Your task to perform on an android device: Open Amazon Image 0: 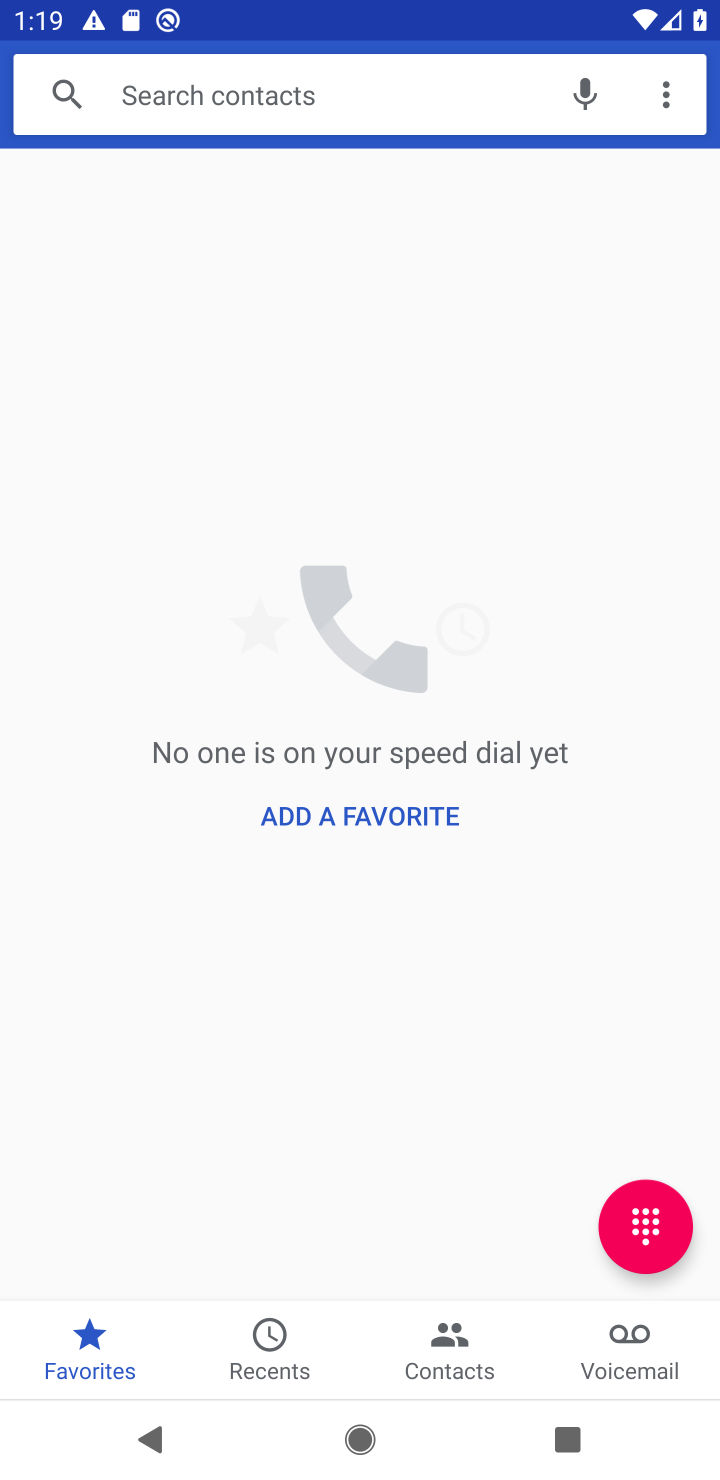
Step 0: press home button
Your task to perform on an android device: Open Amazon Image 1: 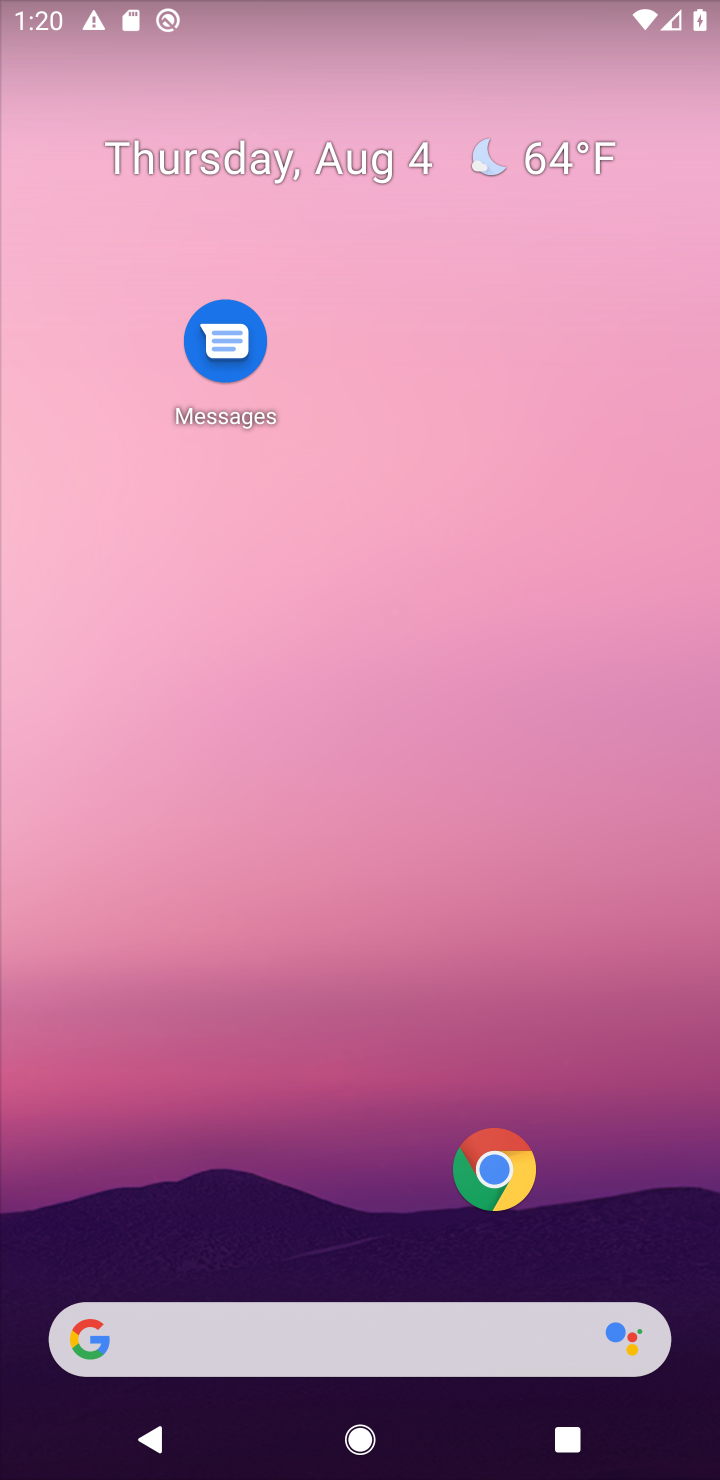
Step 1: drag from (311, 704) to (110, 20)
Your task to perform on an android device: Open Amazon Image 2: 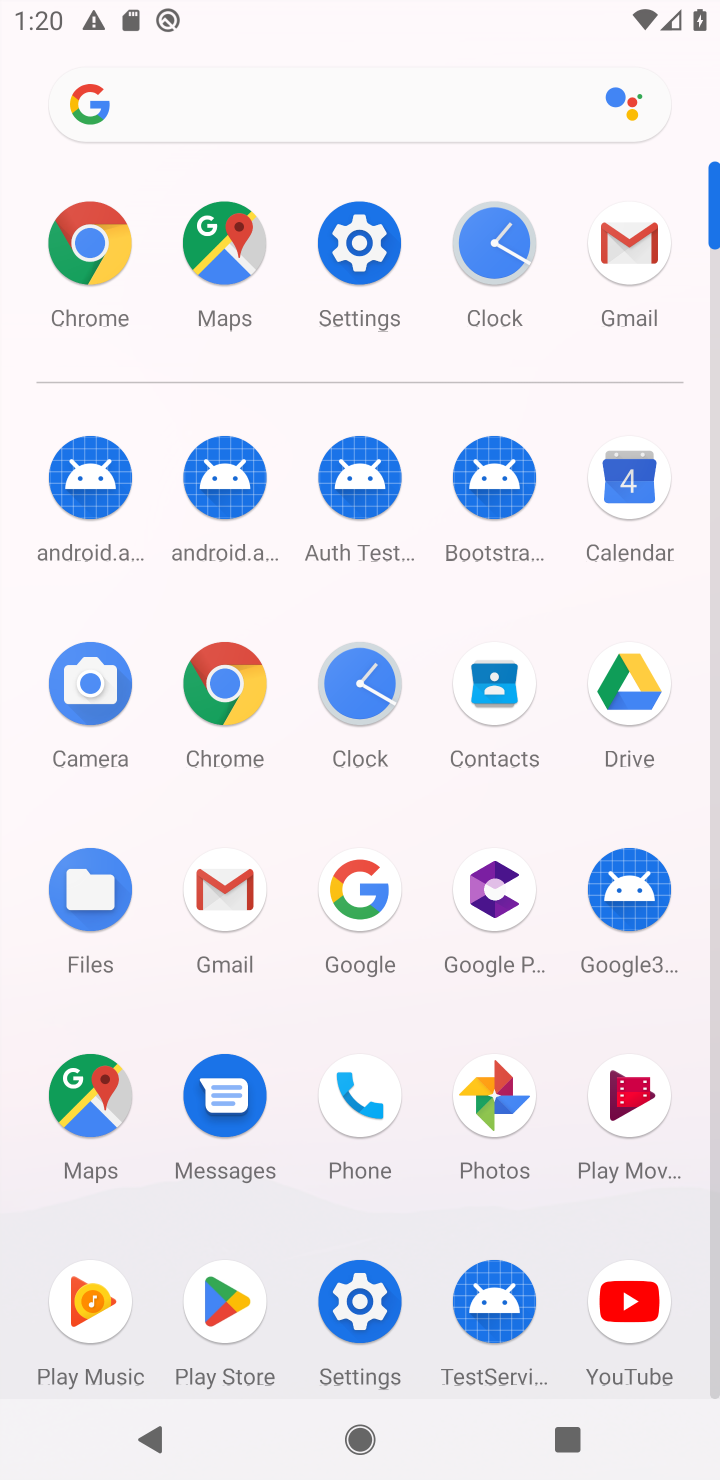
Step 2: click (357, 717)
Your task to perform on an android device: Open Amazon Image 3: 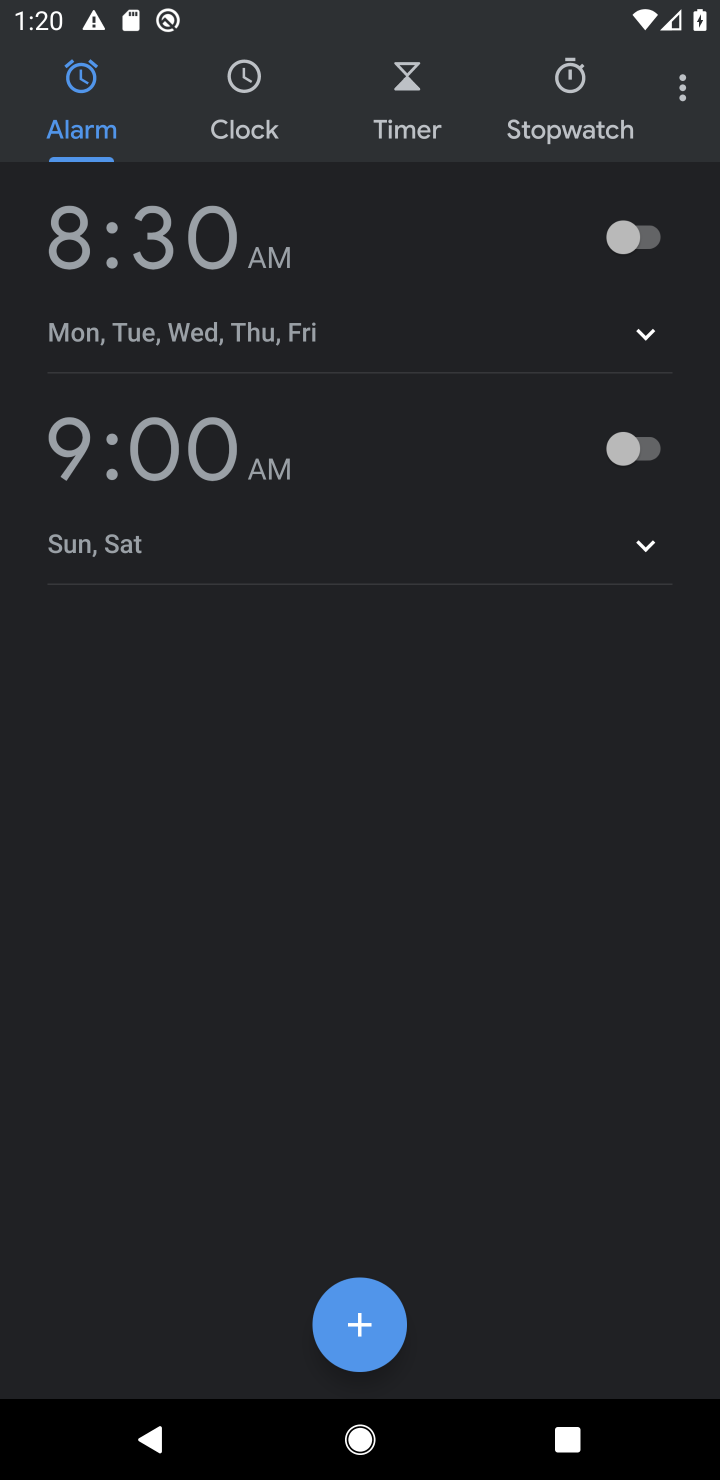
Step 3: press home button
Your task to perform on an android device: Open Amazon Image 4: 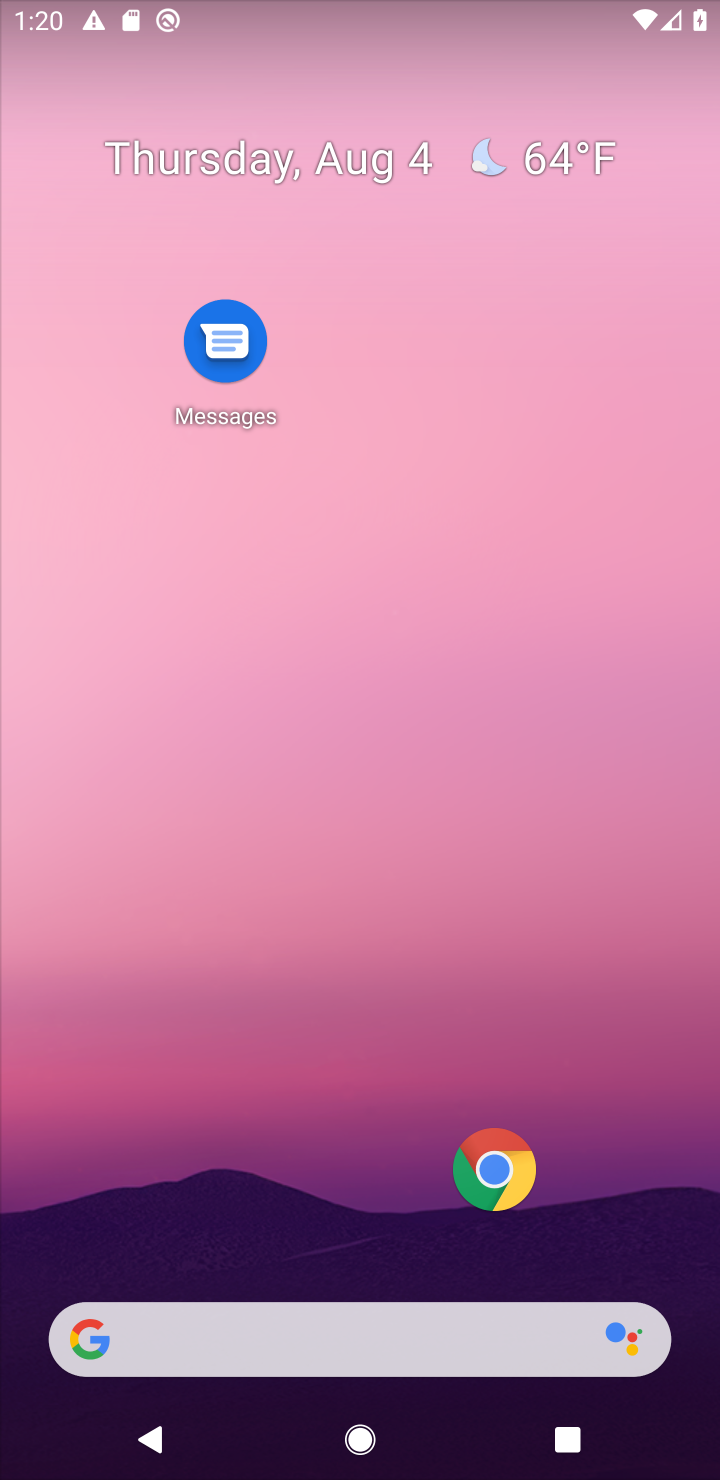
Step 4: click (490, 1174)
Your task to perform on an android device: Open Amazon Image 5: 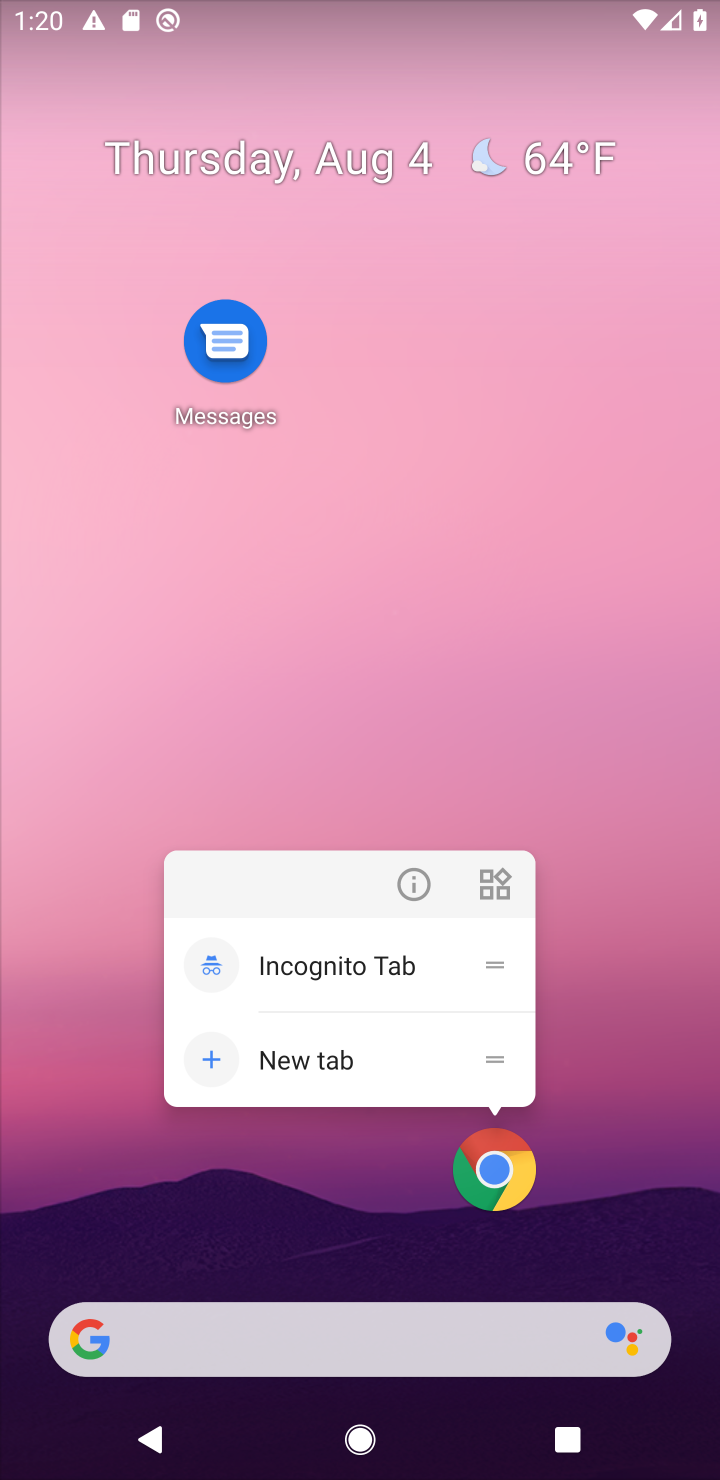
Step 5: click (508, 1186)
Your task to perform on an android device: Open Amazon Image 6: 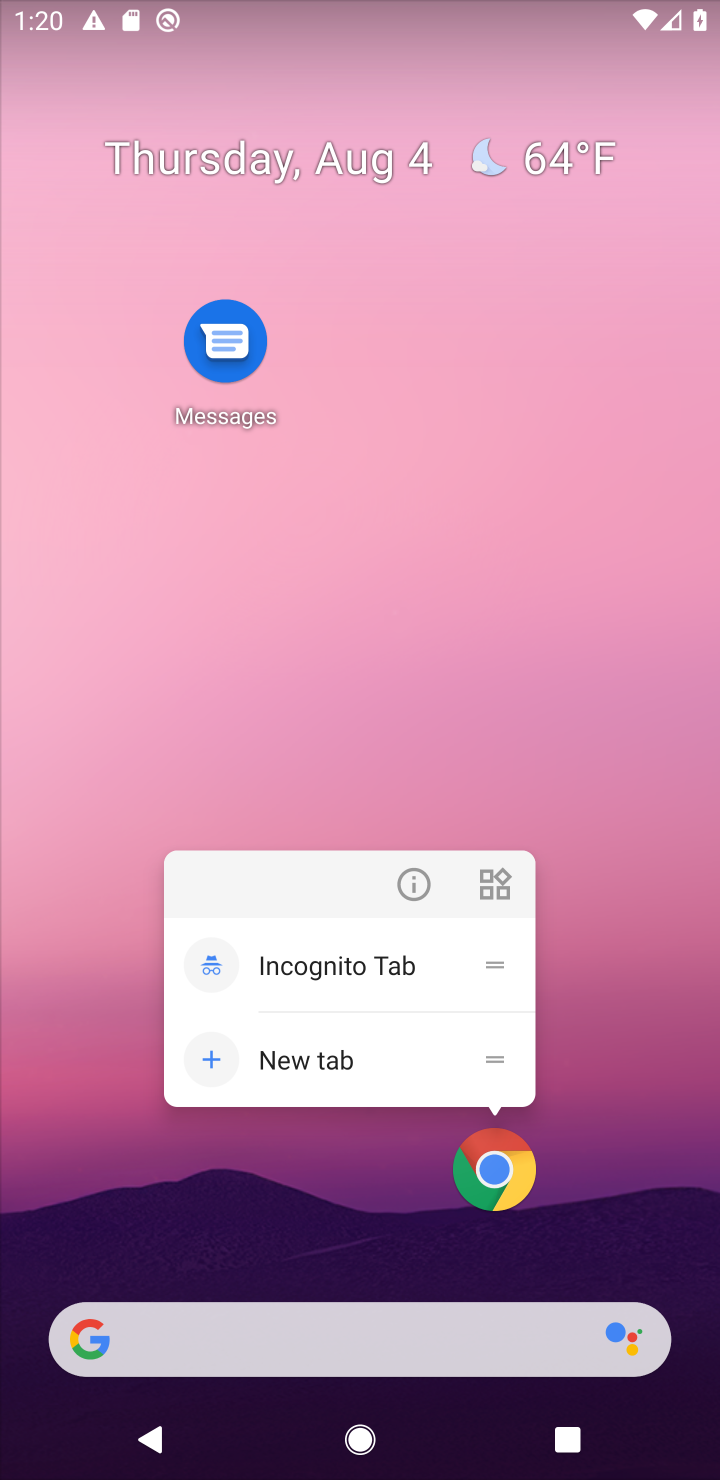
Step 6: click (500, 1161)
Your task to perform on an android device: Open Amazon Image 7: 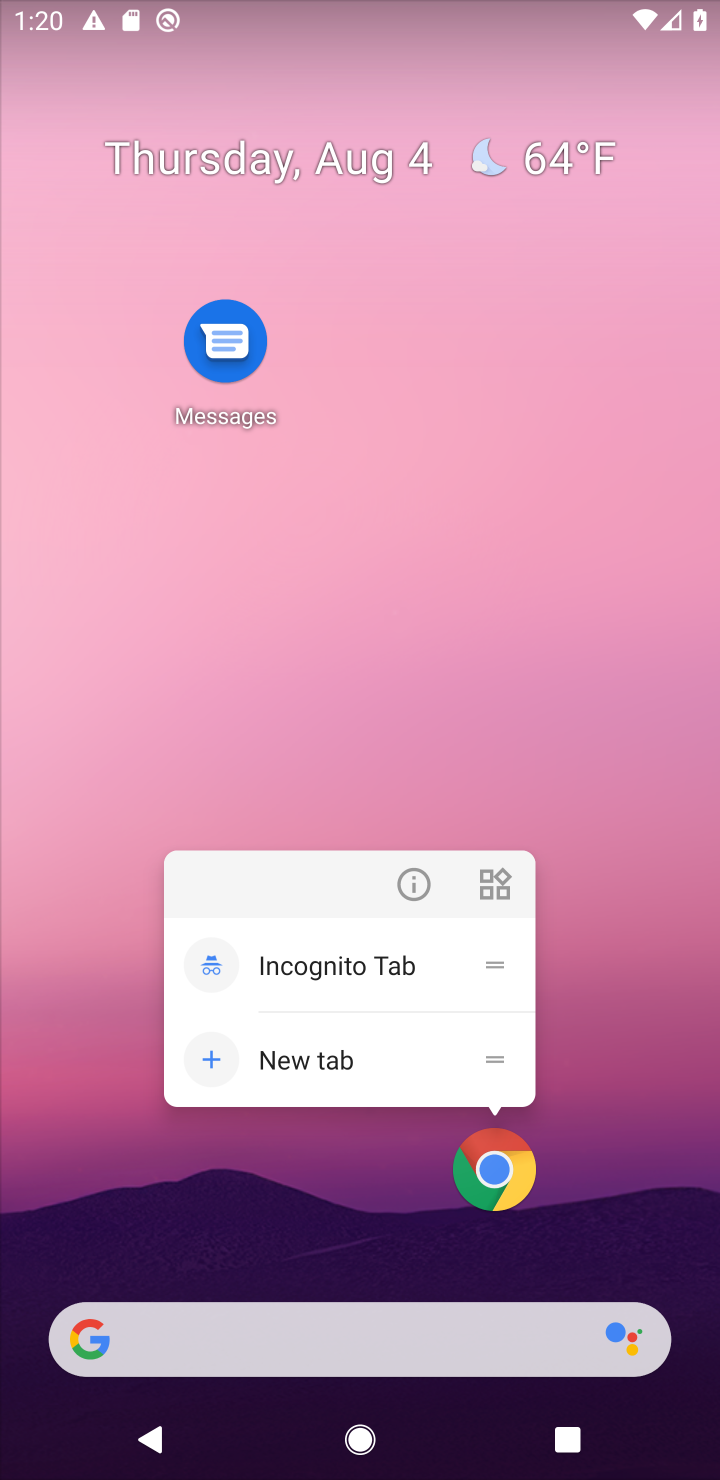
Step 7: click (498, 1182)
Your task to perform on an android device: Open Amazon Image 8: 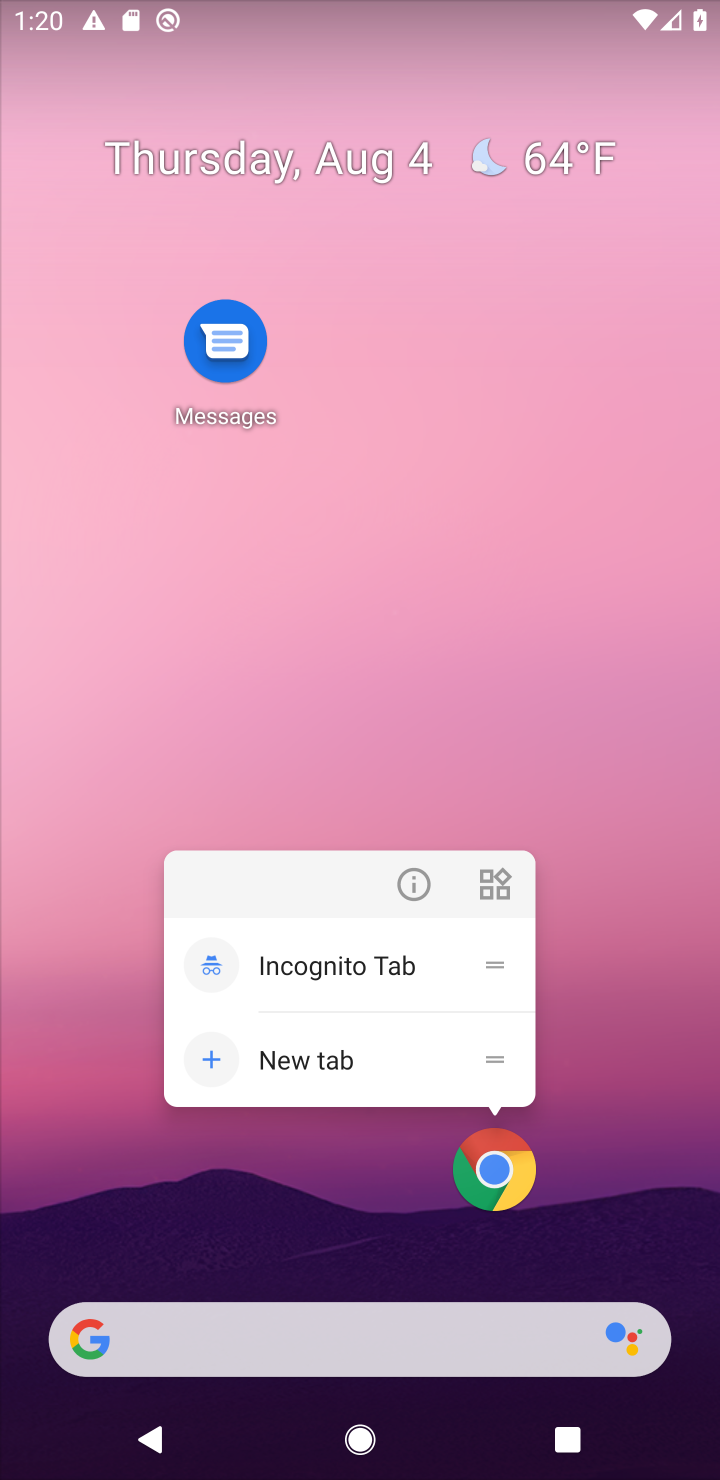
Step 8: click (324, 1252)
Your task to perform on an android device: Open Amazon Image 9: 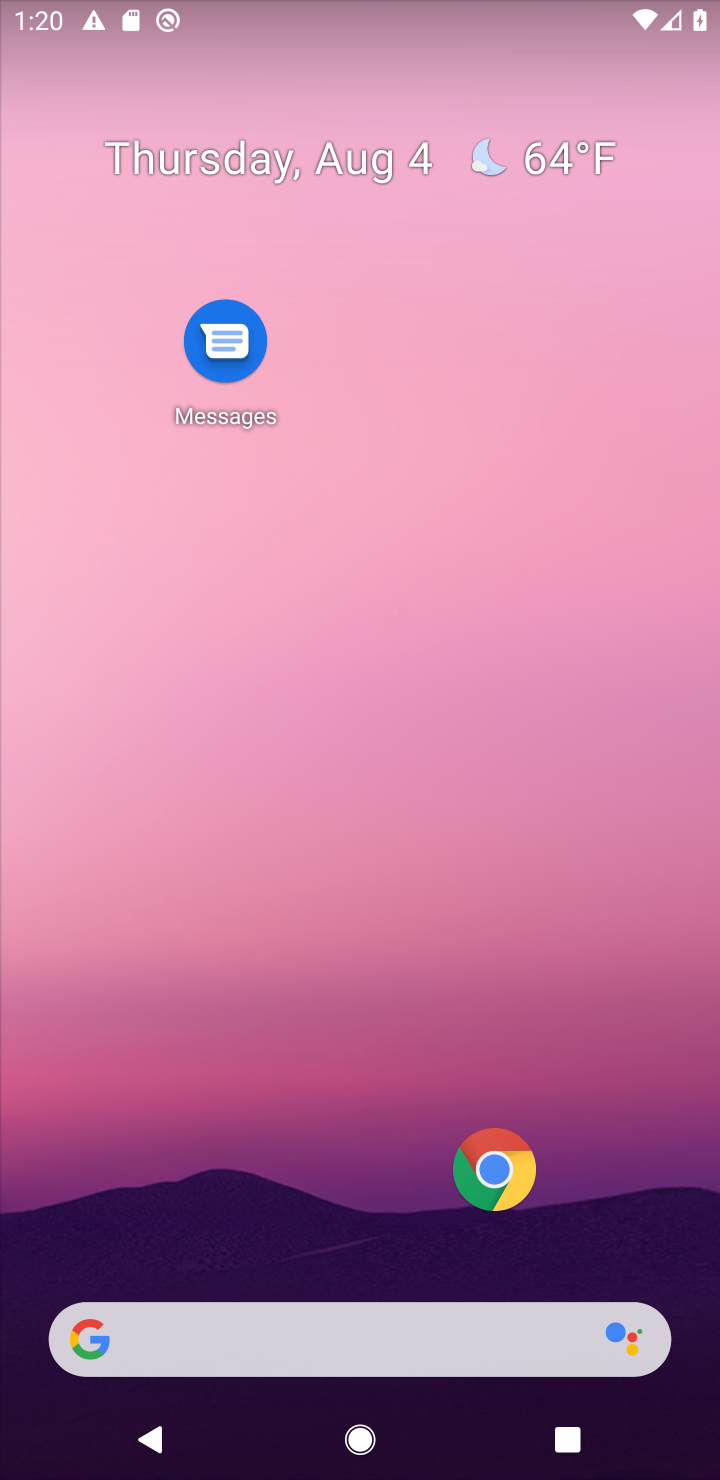
Step 9: drag from (322, 1254) to (221, 54)
Your task to perform on an android device: Open Amazon Image 10: 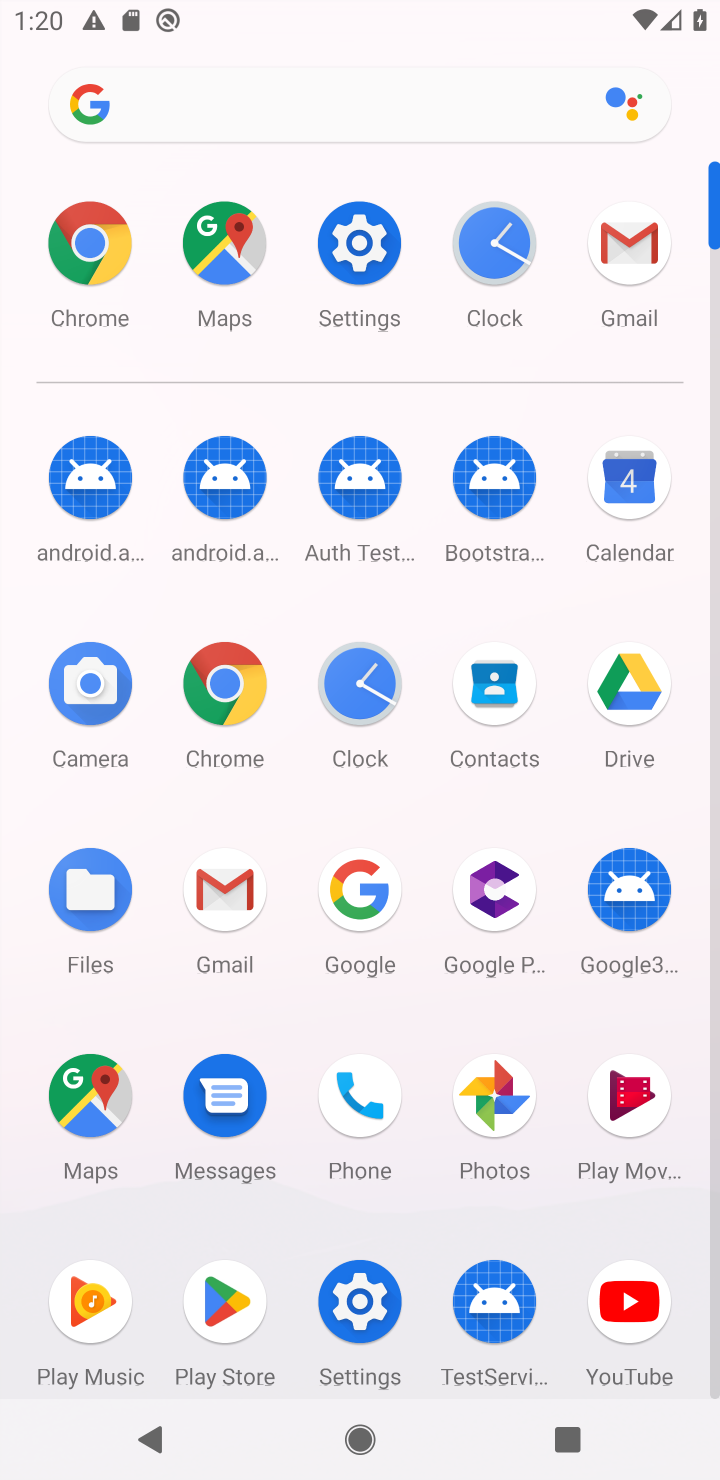
Step 10: click (228, 741)
Your task to perform on an android device: Open Amazon Image 11: 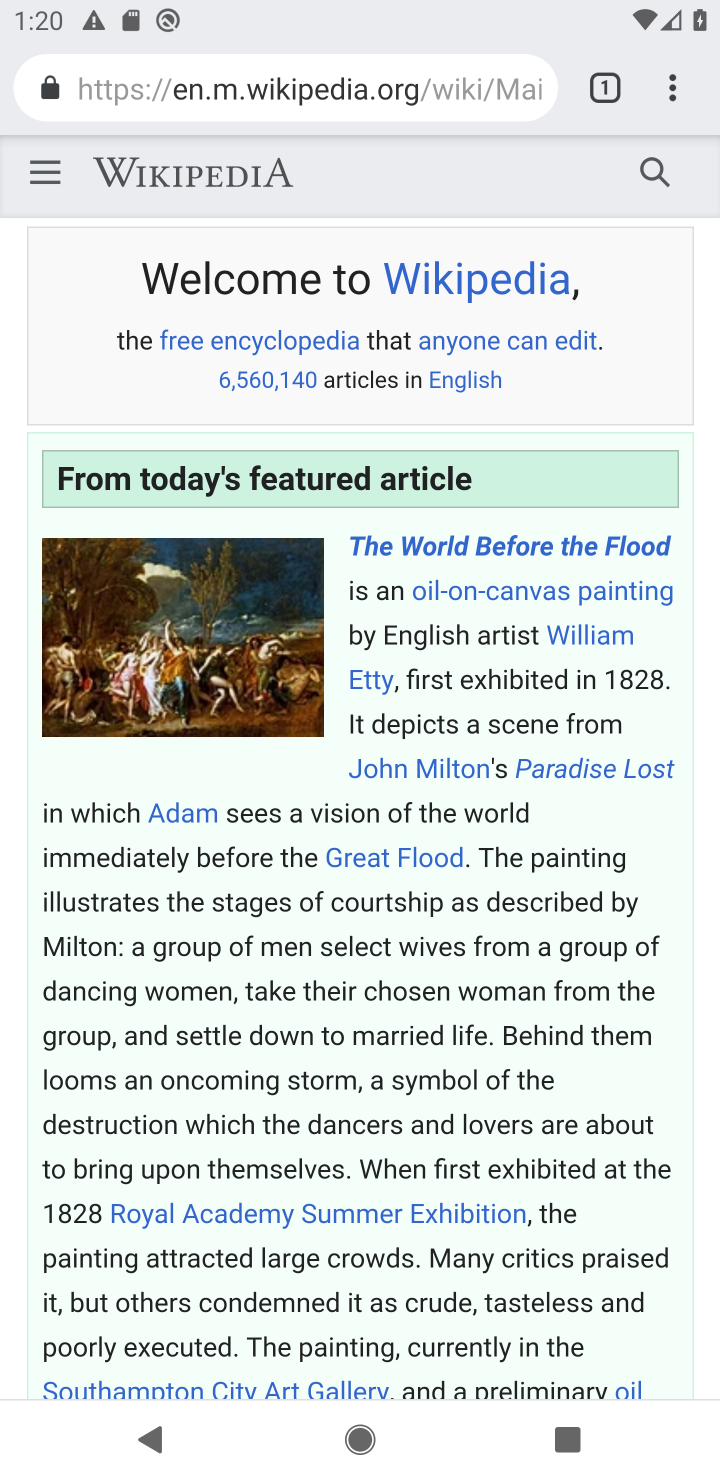
Step 11: click (652, 88)
Your task to perform on an android device: Open Amazon Image 12: 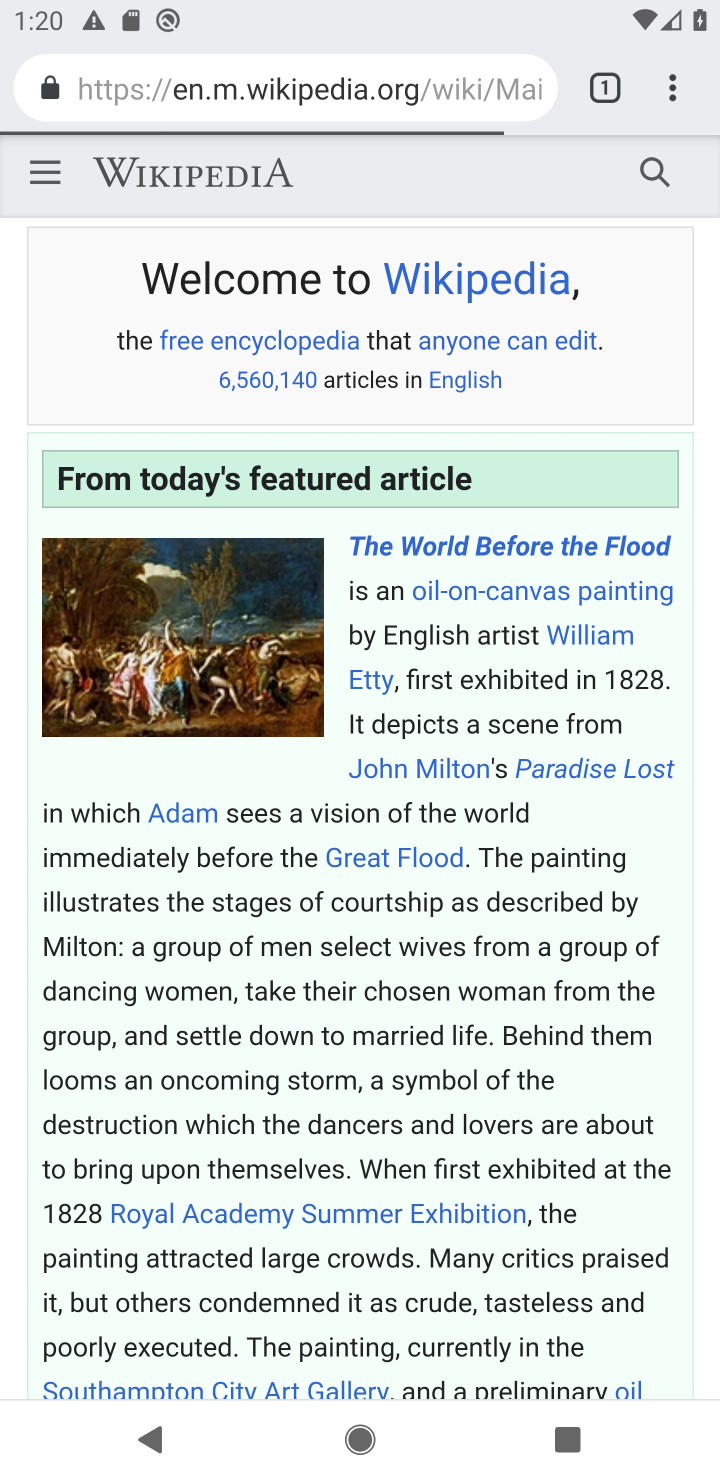
Step 12: click (238, 97)
Your task to perform on an android device: Open Amazon Image 13: 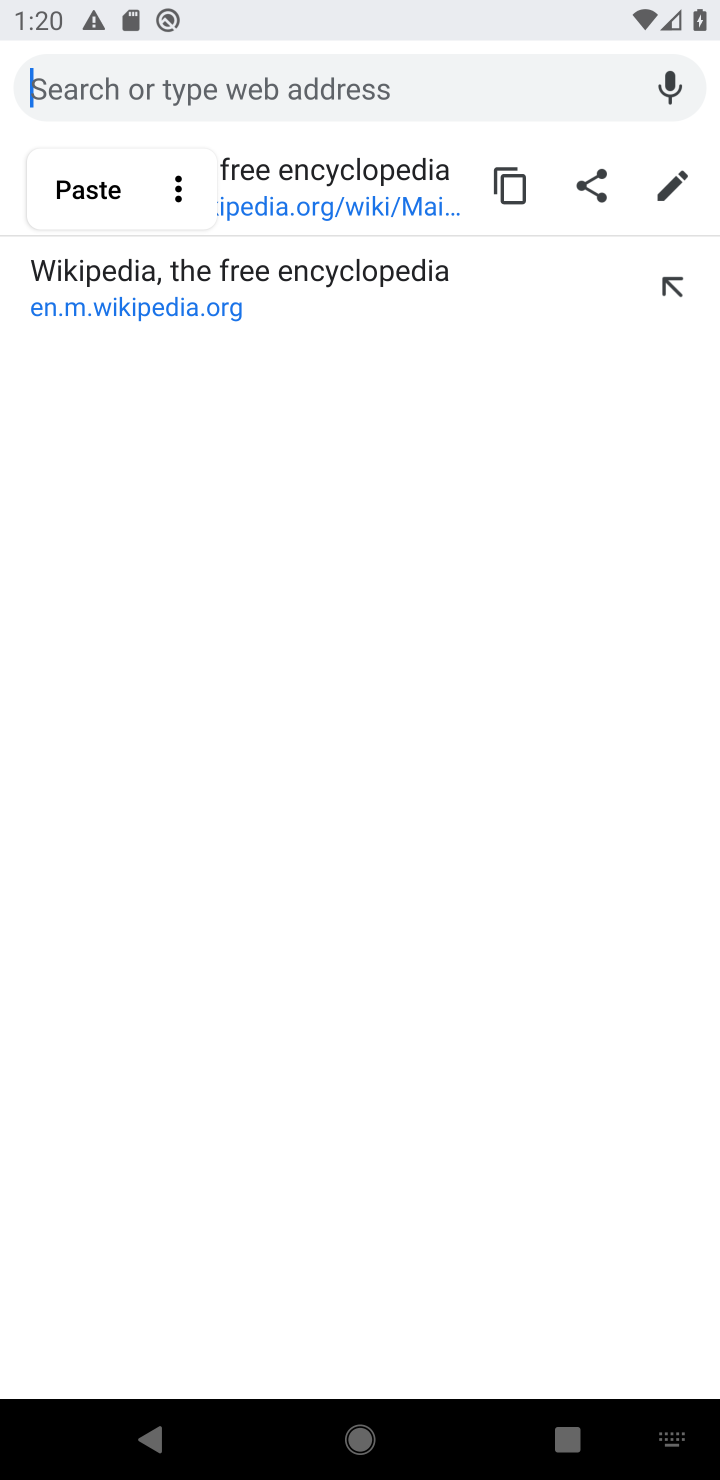
Step 13: type "Amazon"
Your task to perform on an android device: Open Amazon Image 14: 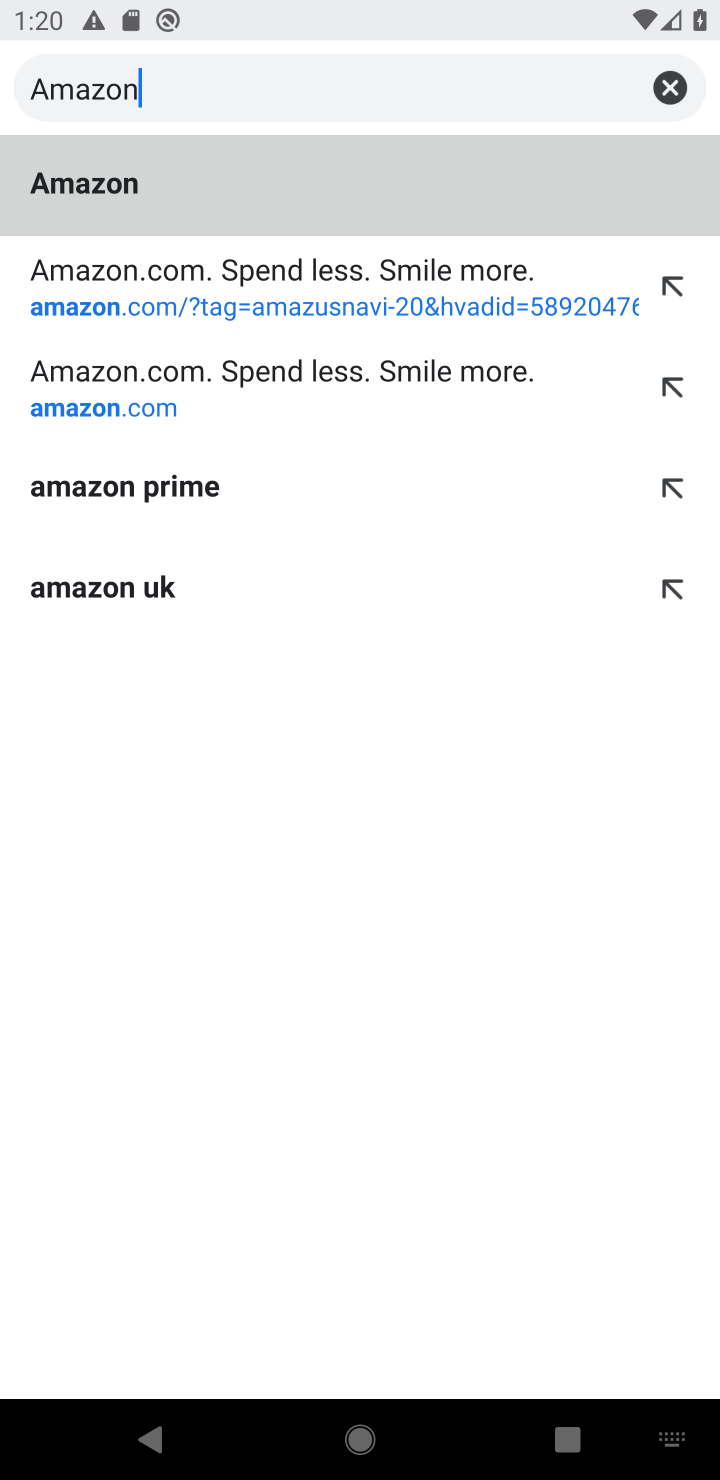
Step 14: click (249, 88)
Your task to perform on an android device: Open Amazon Image 15: 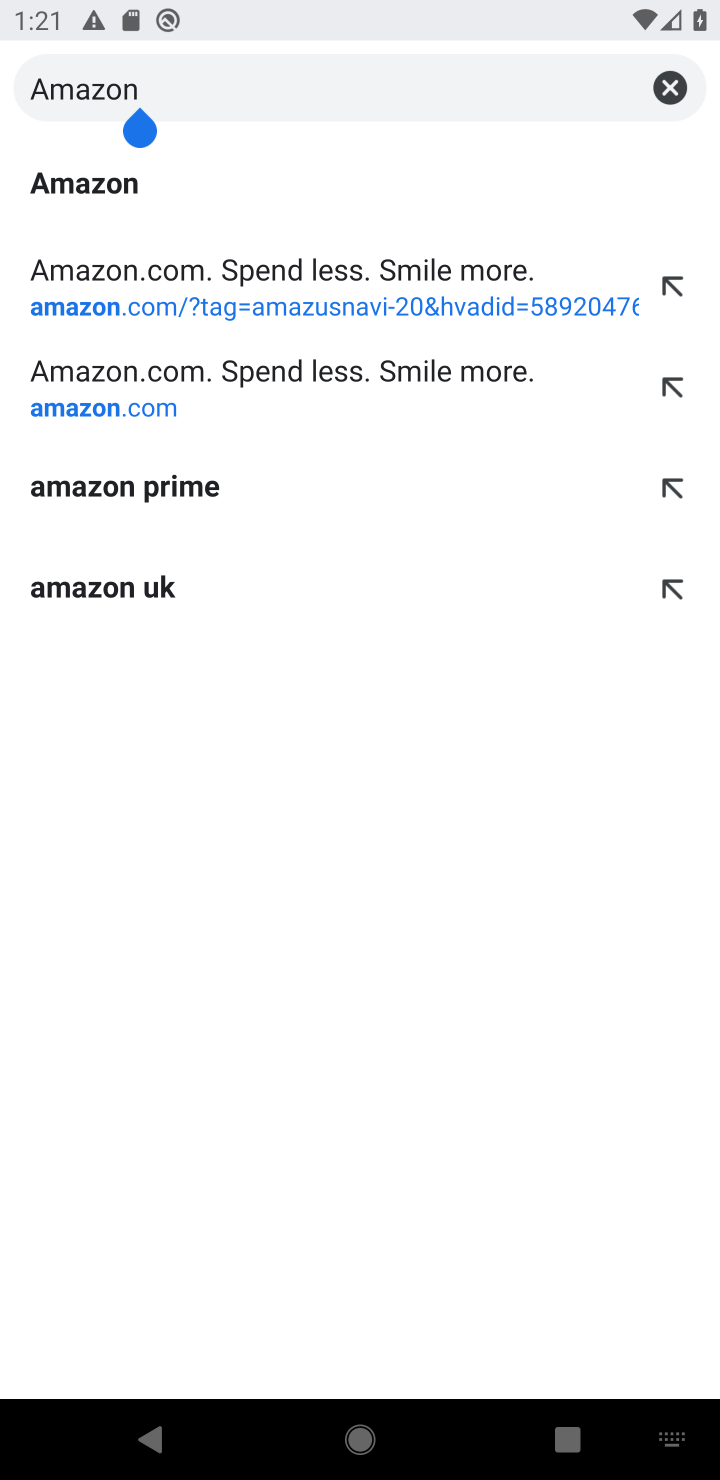
Step 15: click (178, 207)
Your task to perform on an android device: Open Amazon Image 16: 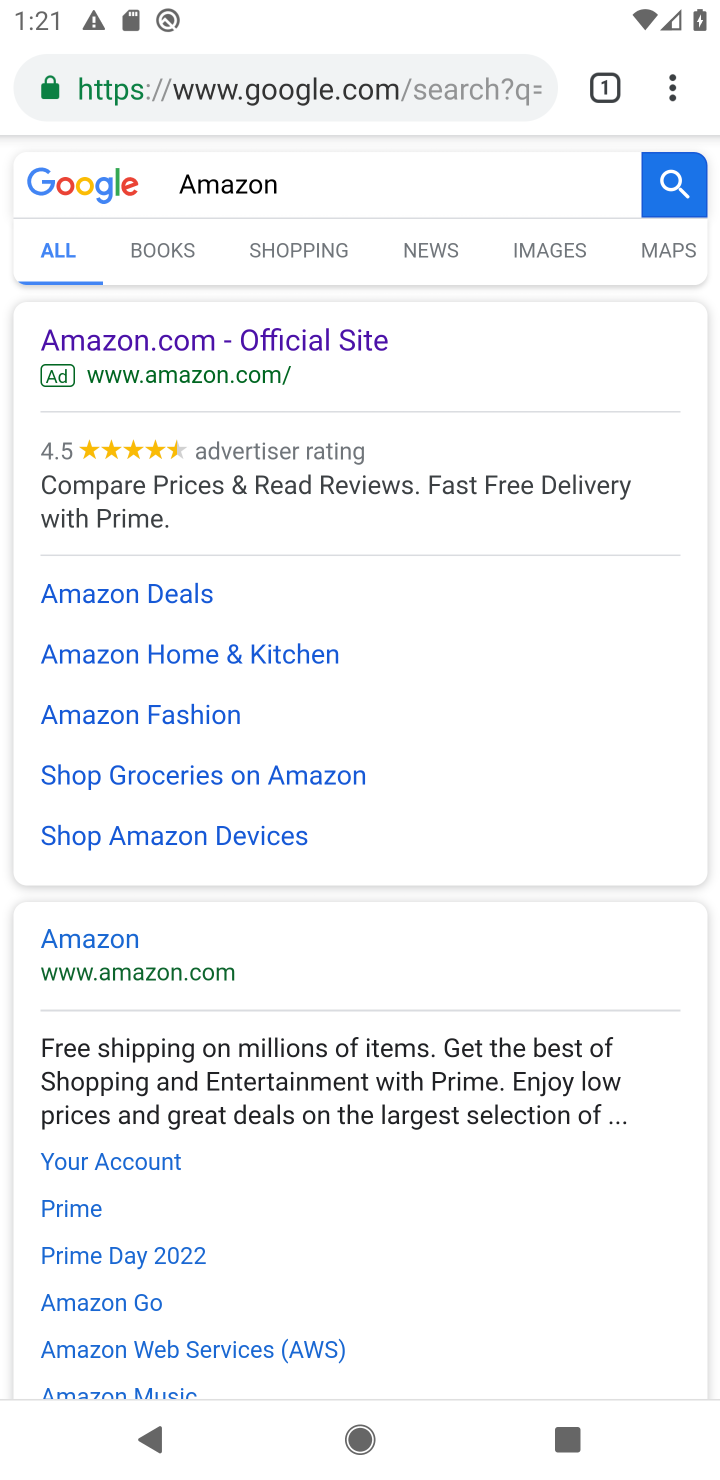
Step 16: click (361, 349)
Your task to perform on an android device: Open Amazon Image 17: 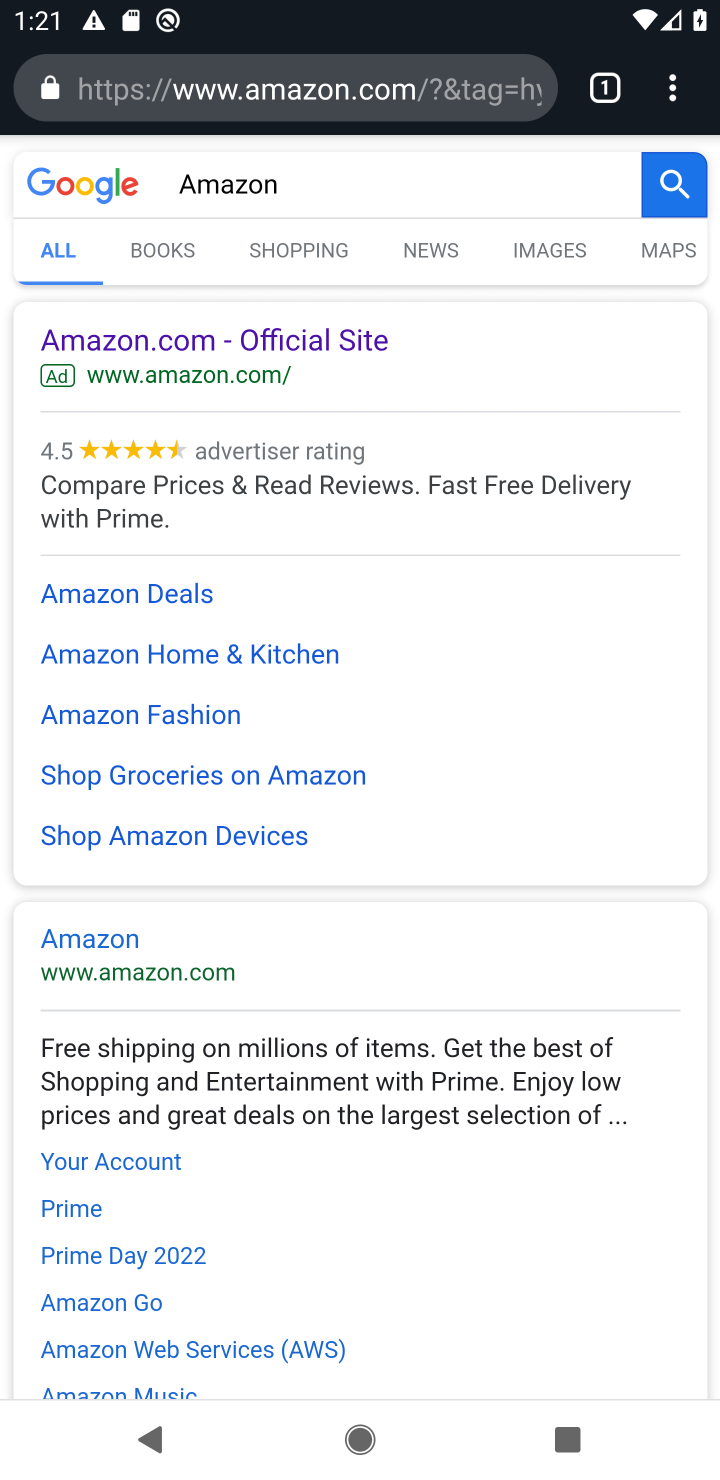
Step 17: task complete